Your task to perform on an android device: Open notification settings Image 0: 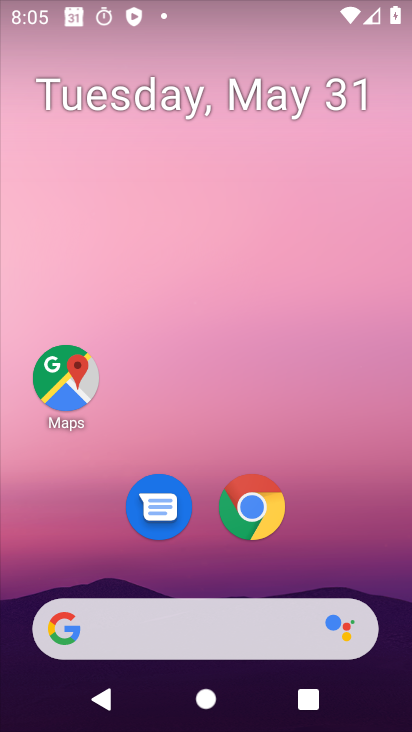
Step 0: drag from (341, 581) to (348, 21)
Your task to perform on an android device: Open notification settings Image 1: 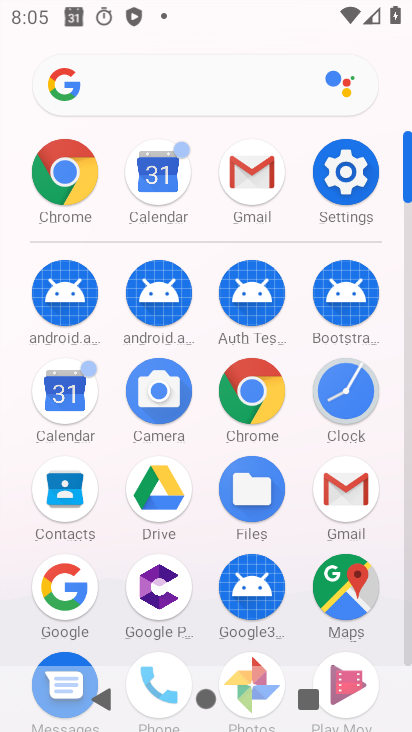
Step 1: click (341, 180)
Your task to perform on an android device: Open notification settings Image 2: 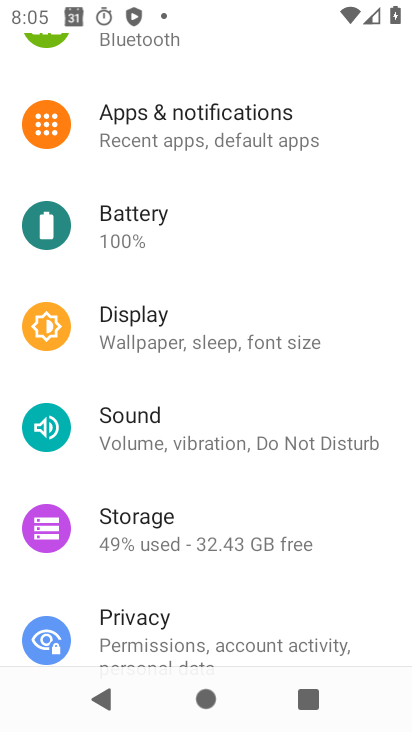
Step 2: click (212, 143)
Your task to perform on an android device: Open notification settings Image 3: 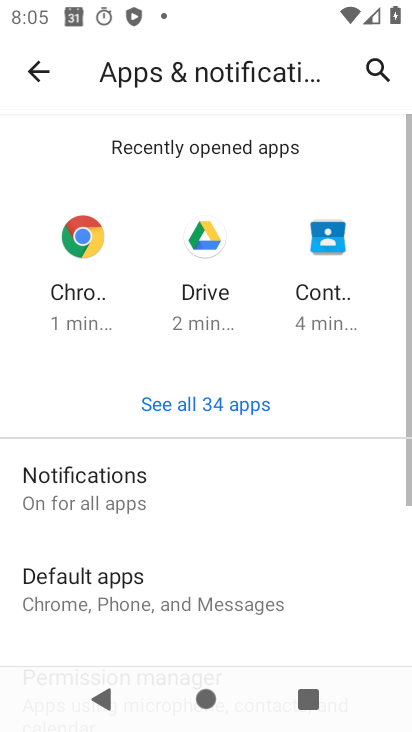
Step 3: click (81, 485)
Your task to perform on an android device: Open notification settings Image 4: 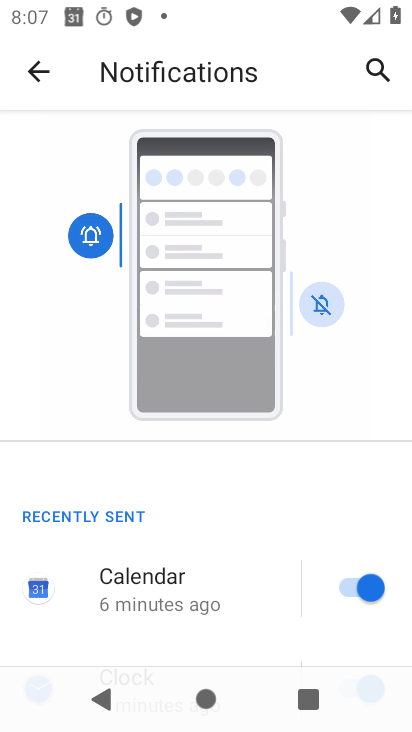
Step 4: task complete